Your task to perform on an android device: set the timer Image 0: 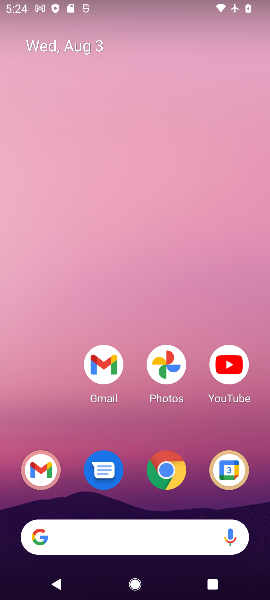
Step 0: drag from (13, 396) to (129, 0)
Your task to perform on an android device: set the timer Image 1: 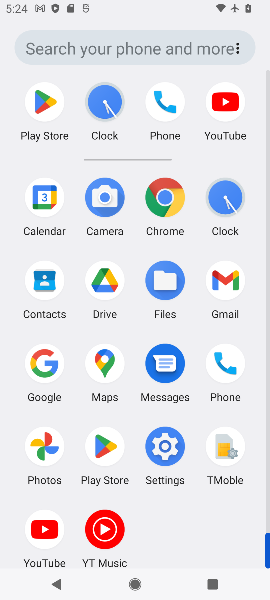
Step 1: click (227, 209)
Your task to perform on an android device: set the timer Image 2: 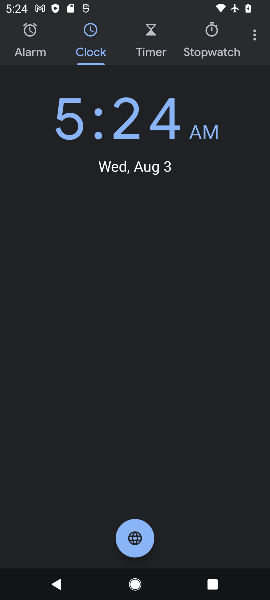
Step 2: click (152, 39)
Your task to perform on an android device: set the timer Image 3: 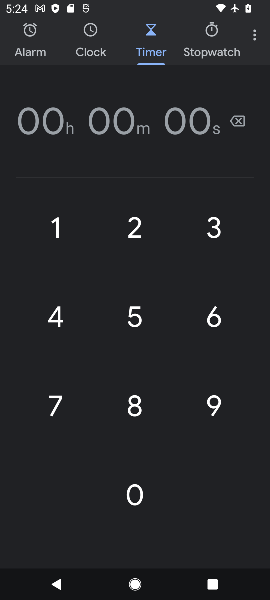
Step 3: click (131, 313)
Your task to perform on an android device: set the timer Image 4: 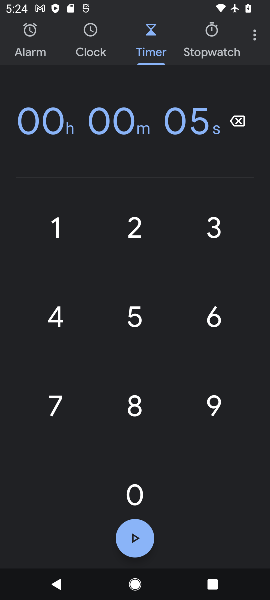
Step 4: task complete